Your task to perform on an android device: open a bookmark in the chrome app Image 0: 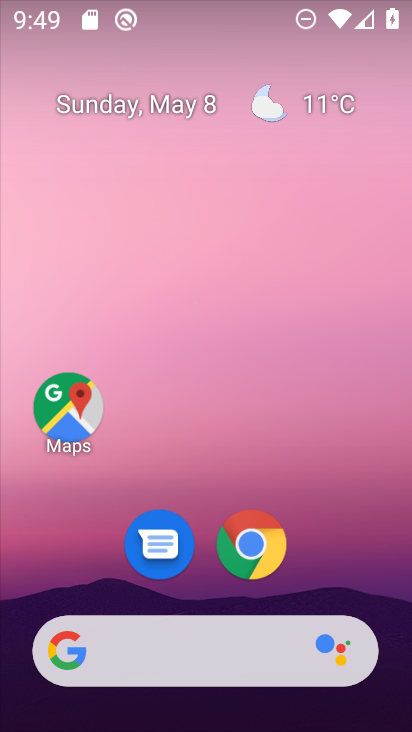
Step 0: click (261, 539)
Your task to perform on an android device: open a bookmark in the chrome app Image 1: 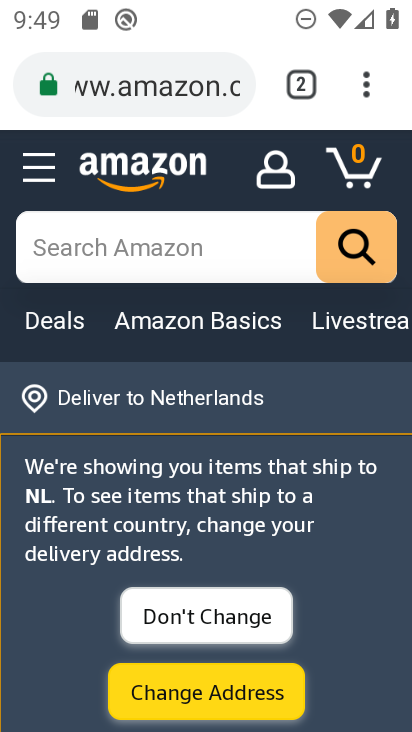
Step 1: task complete